Your task to perform on an android device: delete location history Image 0: 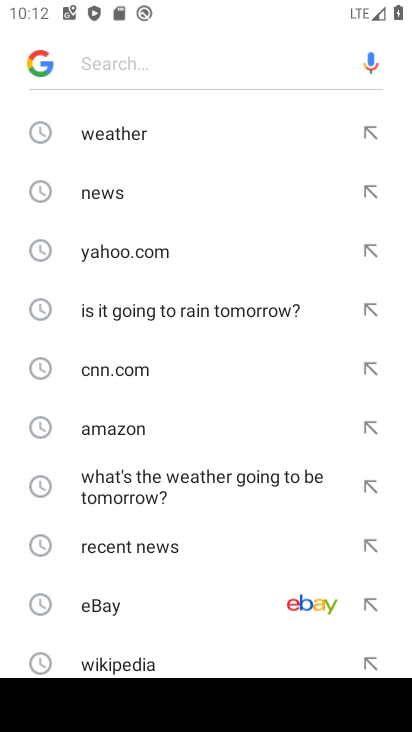
Step 0: press home button
Your task to perform on an android device: delete location history Image 1: 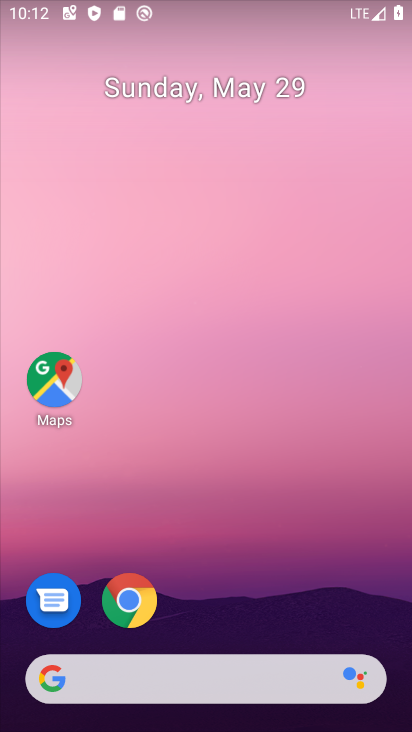
Step 1: drag from (241, 592) to (229, 38)
Your task to perform on an android device: delete location history Image 2: 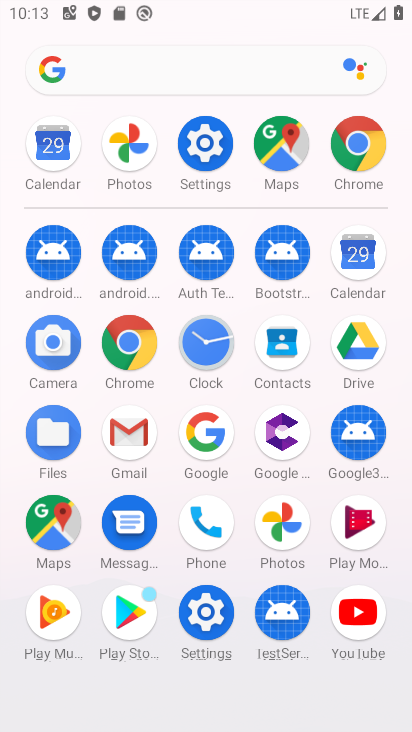
Step 2: click (212, 640)
Your task to perform on an android device: delete location history Image 3: 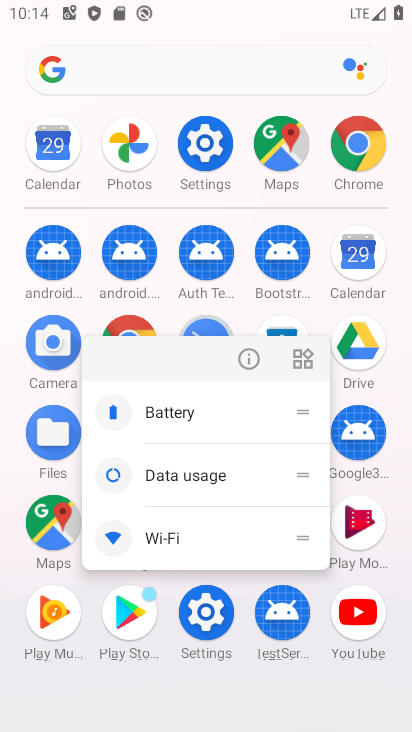
Step 3: click (42, 502)
Your task to perform on an android device: delete location history Image 4: 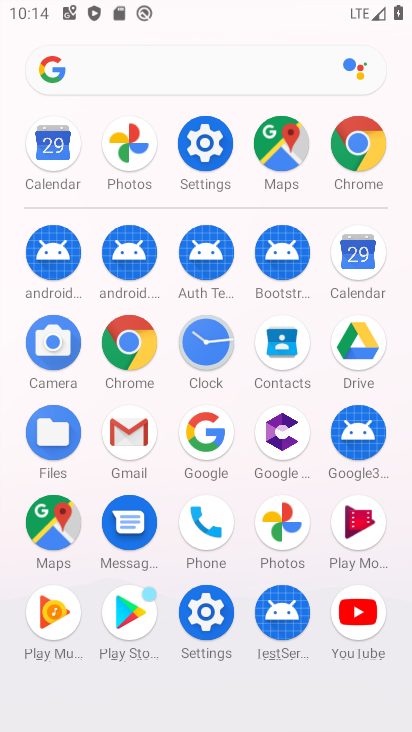
Step 4: click (53, 540)
Your task to perform on an android device: delete location history Image 5: 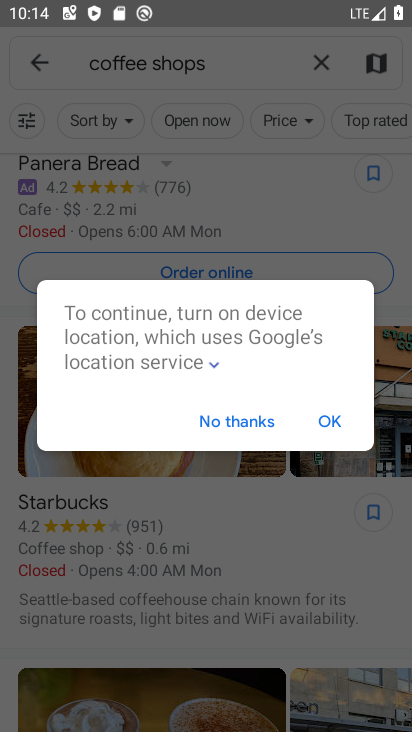
Step 5: click (213, 432)
Your task to perform on an android device: delete location history Image 6: 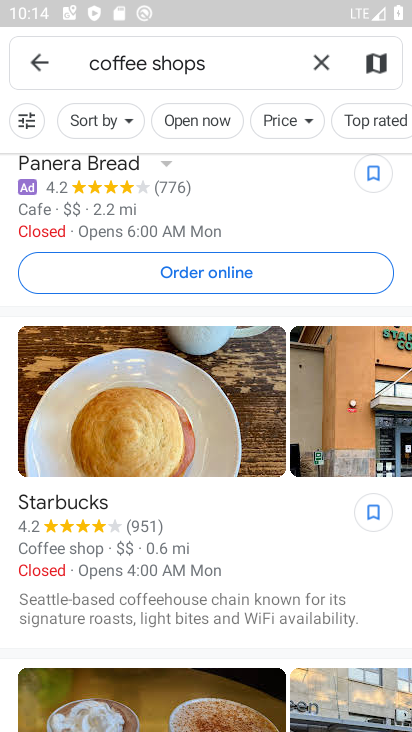
Step 6: click (49, 66)
Your task to perform on an android device: delete location history Image 7: 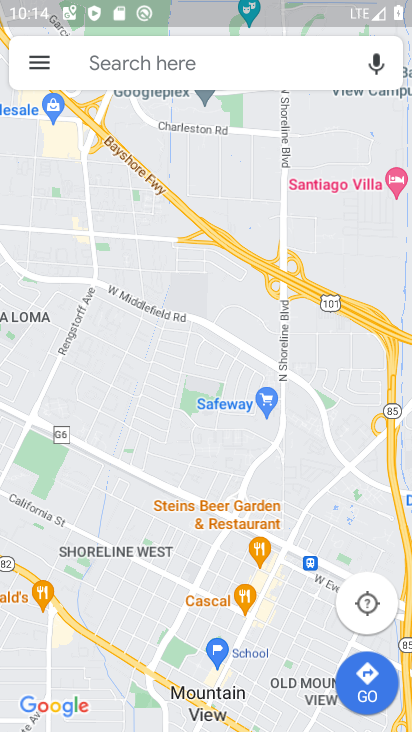
Step 7: click (142, 66)
Your task to perform on an android device: delete location history Image 8: 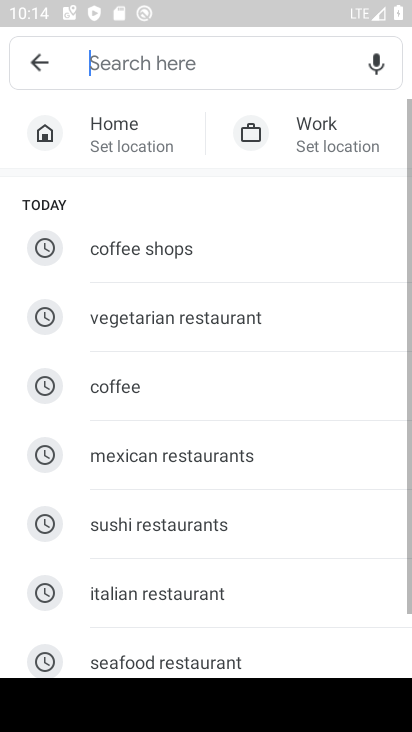
Step 8: click (15, 30)
Your task to perform on an android device: delete location history Image 9: 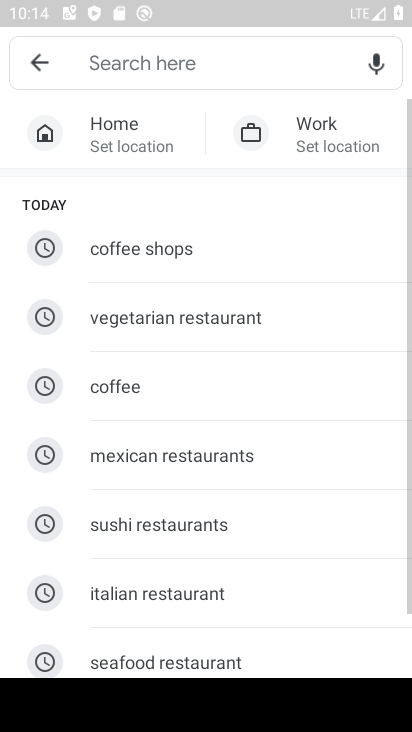
Step 9: click (34, 36)
Your task to perform on an android device: delete location history Image 10: 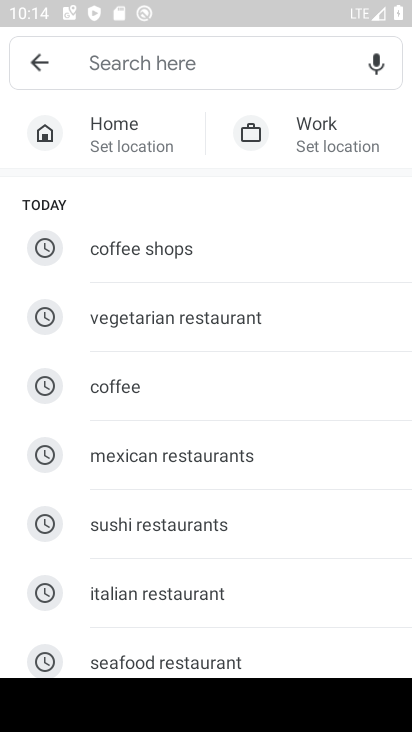
Step 10: click (29, 59)
Your task to perform on an android device: delete location history Image 11: 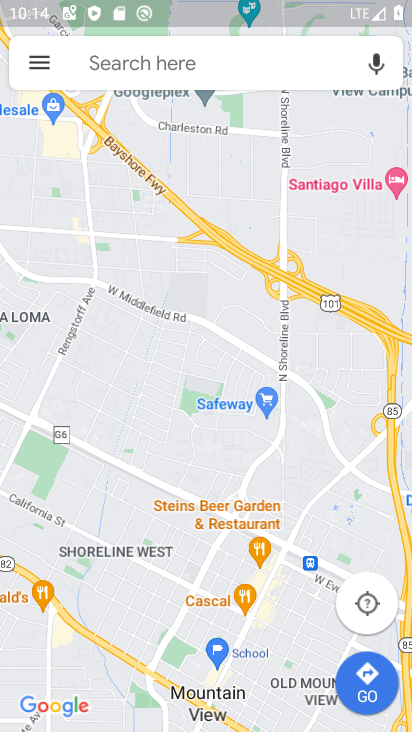
Step 11: click (29, 59)
Your task to perform on an android device: delete location history Image 12: 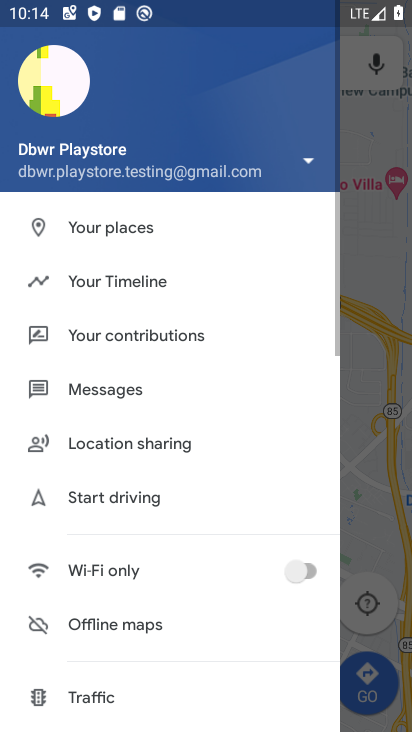
Step 12: click (29, 59)
Your task to perform on an android device: delete location history Image 13: 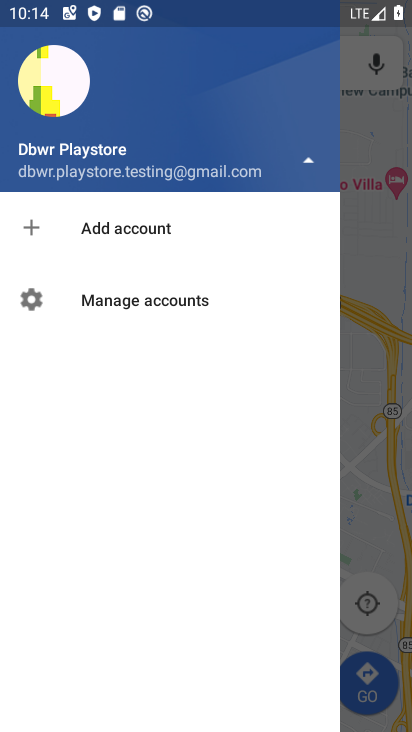
Step 13: click (27, 115)
Your task to perform on an android device: delete location history Image 14: 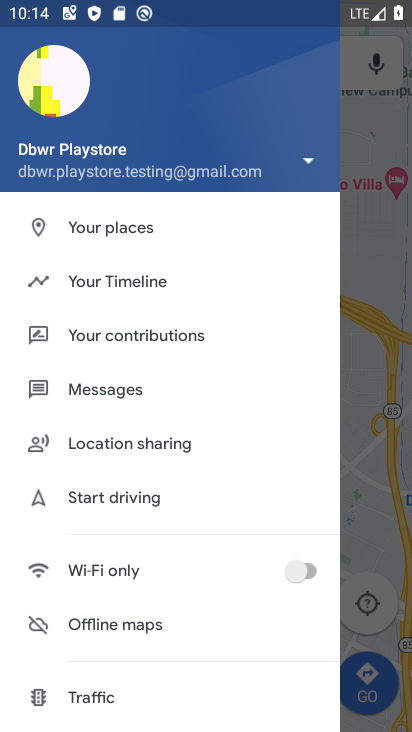
Step 14: click (175, 287)
Your task to perform on an android device: delete location history Image 15: 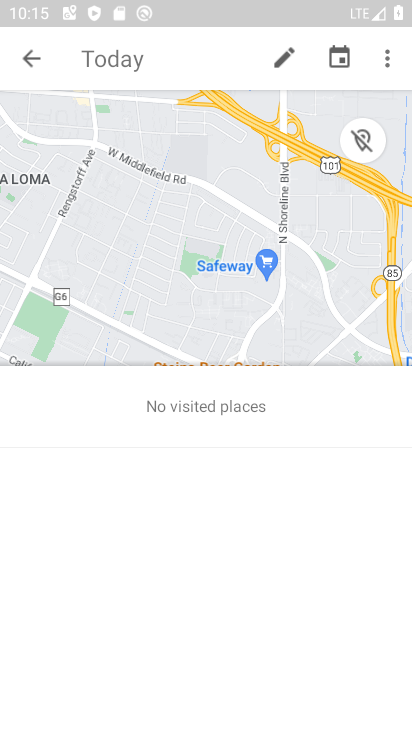
Step 15: click (384, 39)
Your task to perform on an android device: delete location history Image 16: 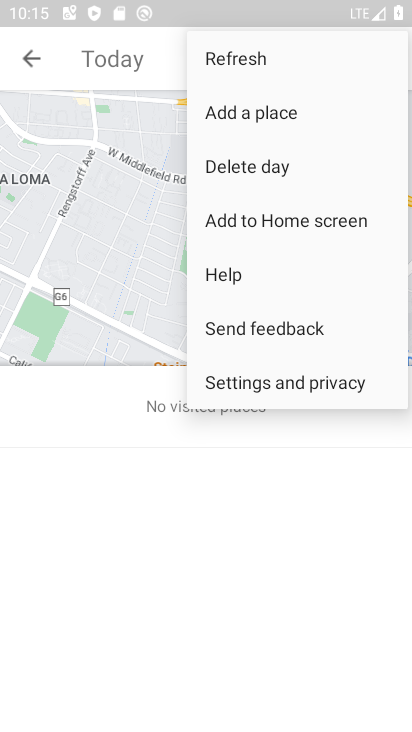
Step 16: click (283, 381)
Your task to perform on an android device: delete location history Image 17: 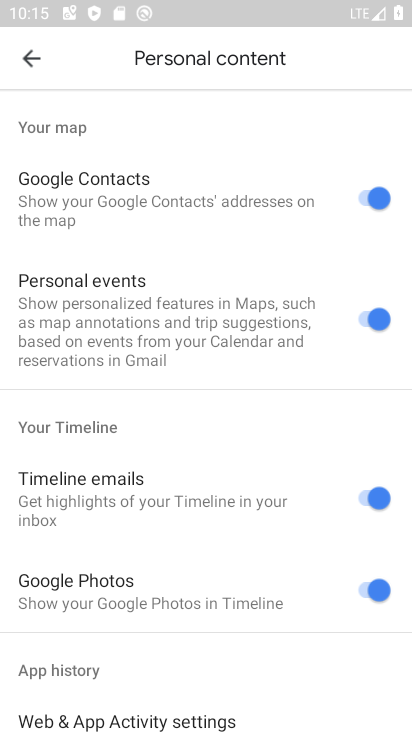
Step 17: drag from (188, 686) to (344, 1)
Your task to perform on an android device: delete location history Image 18: 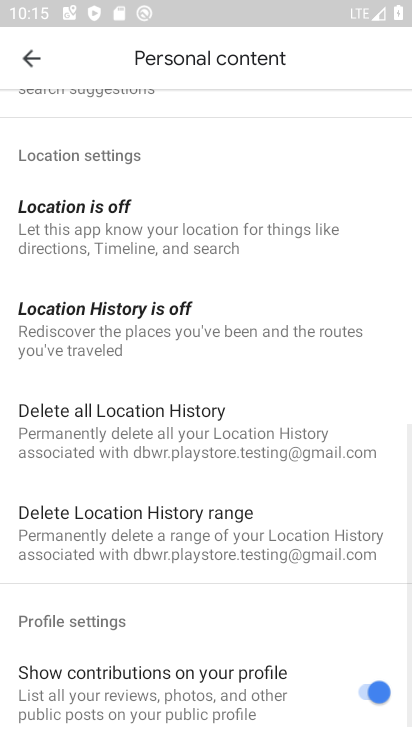
Step 18: click (255, 458)
Your task to perform on an android device: delete location history Image 19: 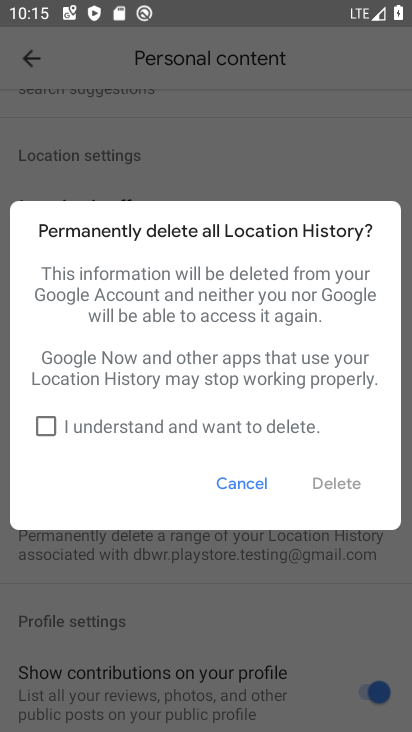
Step 19: click (225, 419)
Your task to perform on an android device: delete location history Image 20: 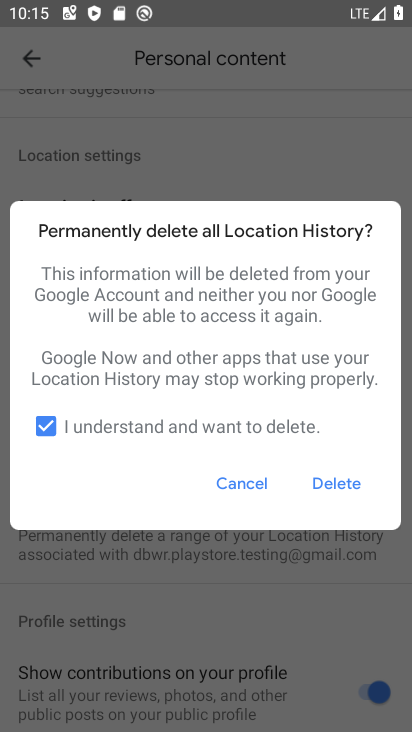
Step 20: click (341, 466)
Your task to perform on an android device: delete location history Image 21: 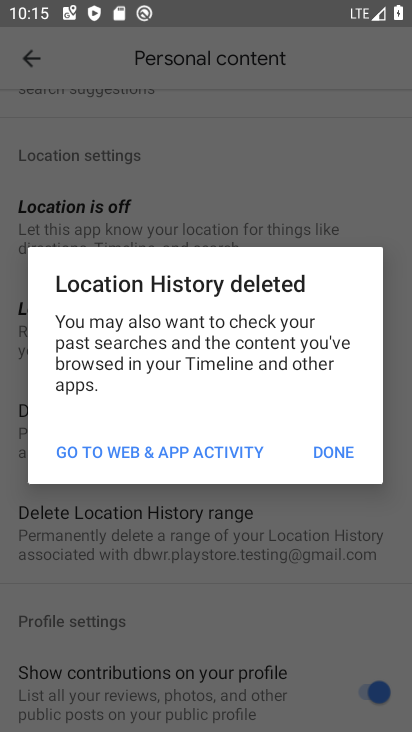
Step 21: click (333, 448)
Your task to perform on an android device: delete location history Image 22: 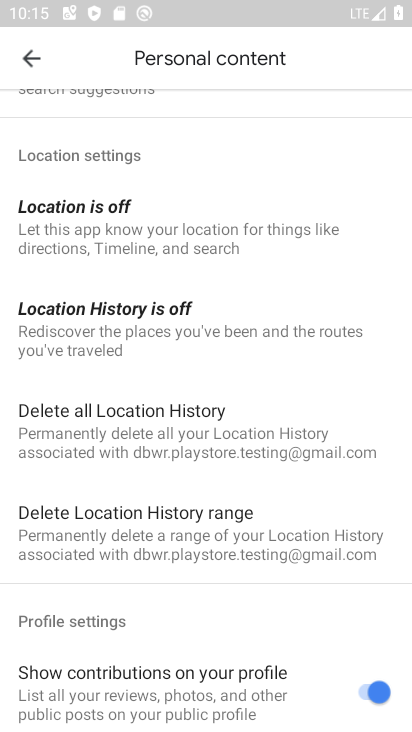
Step 22: task complete